Your task to perform on an android device: Show me recent news Image 0: 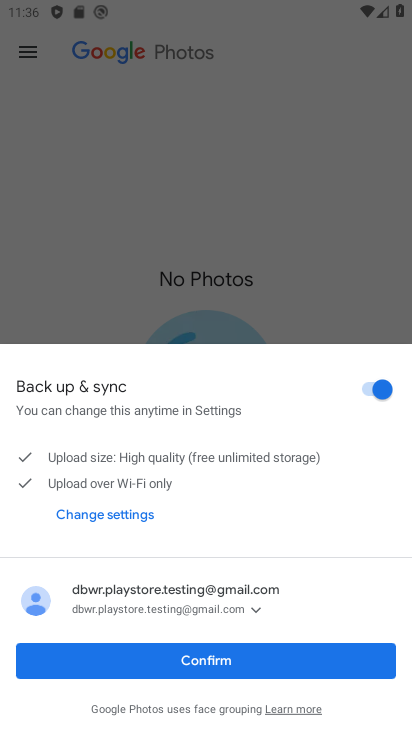
Step 0: press home button
Your task to perform on an android device: Show me recent news Image 1: 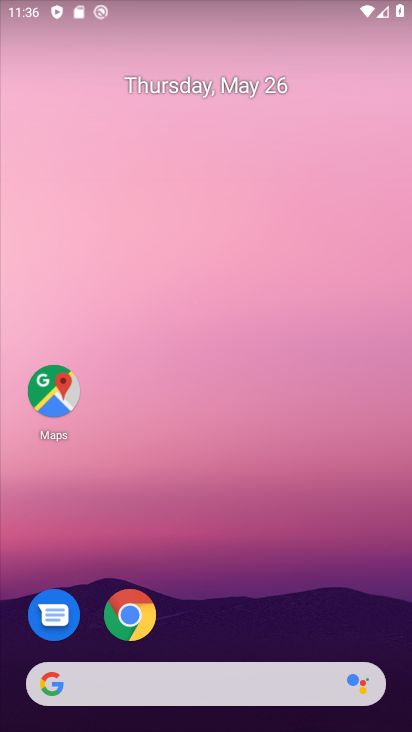
Step 1: task complete